Your task to perform on an android device: empty trash in google photos Image 0: 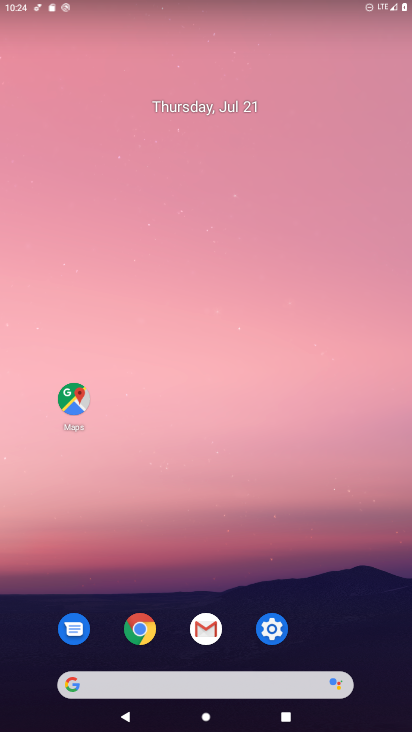
Step 0: click (208, 623)
Your task to perform on an android device: empty trash in google photos Image 1: 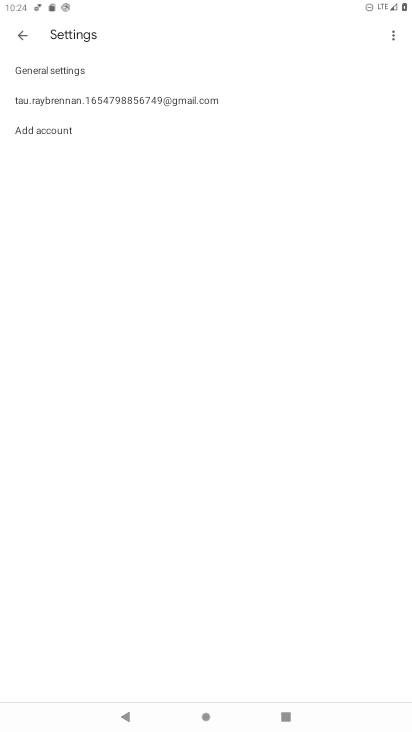
Step 1: press home button
Your task to perform on an android device: empty trash in google photos Image 2: 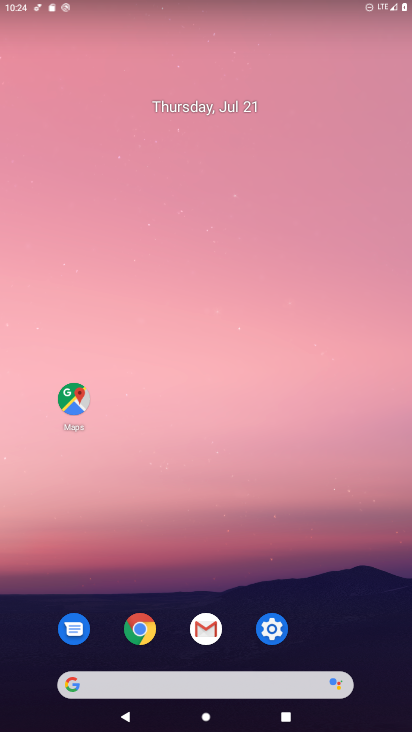
Step 2: drag from (298, 704) to (178, 63)
Your task to perform on an android device: empty trash in google photos Image 3: 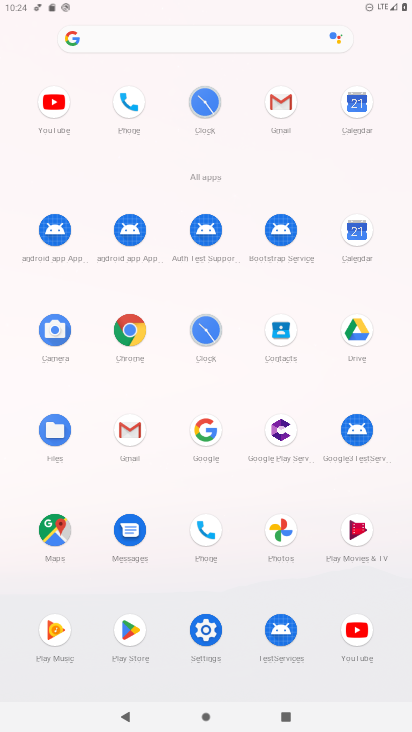
Step 3: click (280, 530)
Your task to perform on an android device: empty trash in google photos Image 4: 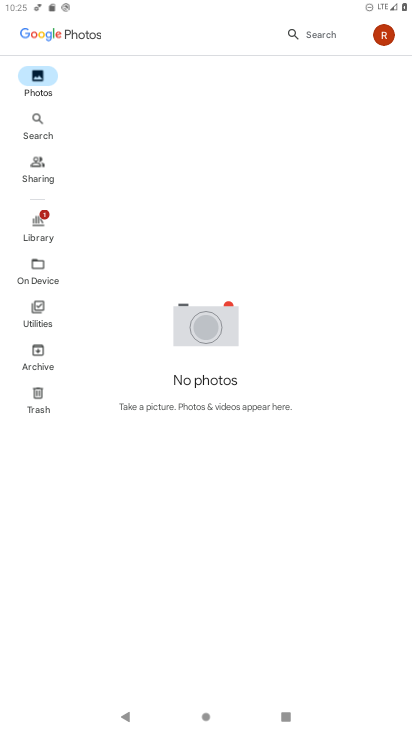
Step 4: click (289, 29)
Your task to perform on an android device: empty trash in google photos Image 5: 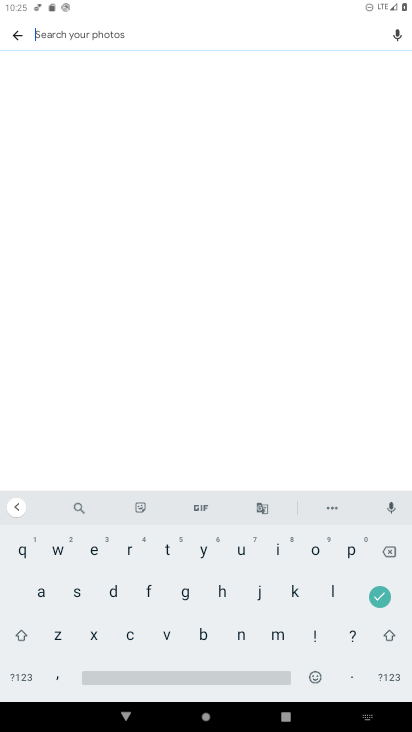
Step 5: click (164, 555)
Your task to perform on an android device: empty trash in google photos Image 6: 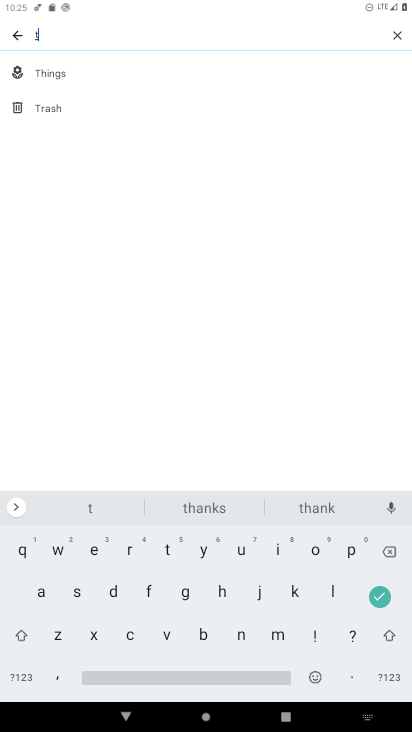
Step 6: click (50, 112)
Your task to perform on an android device: empty trash in google photos Image 7: 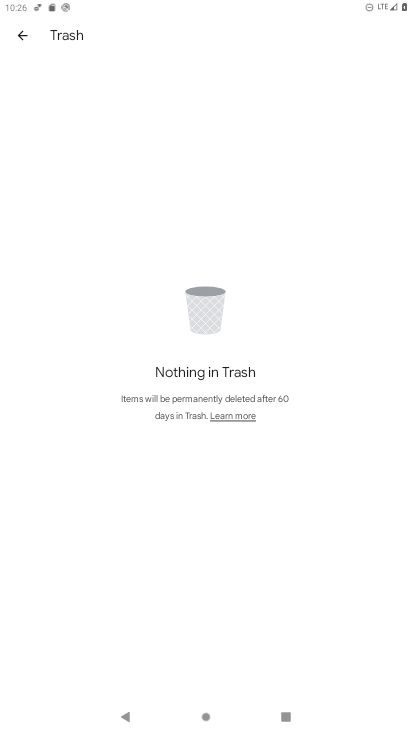
Step 7: task complete